Your task to perform on an android device: Go to display settings Image 0: 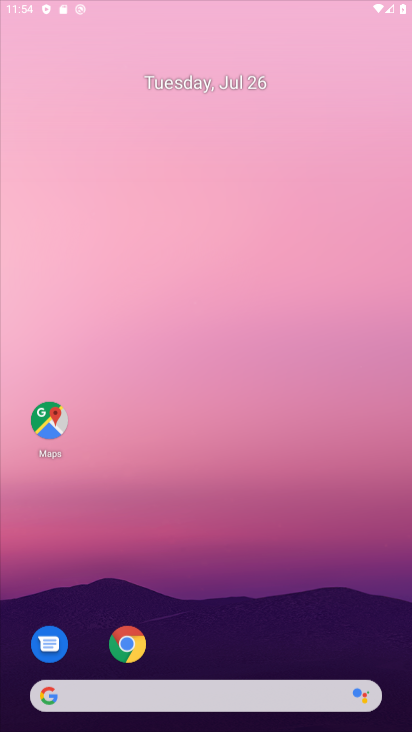
Step 0: click (18, 38)
Your task to perform on an android device: Go to display settings Image 1: 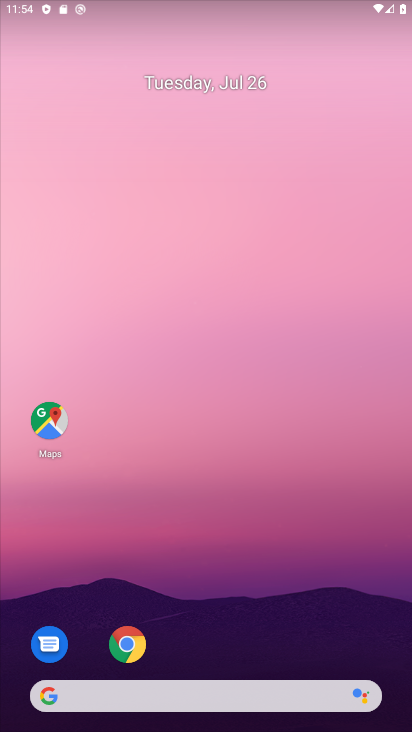
Step 1: drag from (187, 279) to (275, 95)
Your task to perform on an android device: Go to display settings Image 2: 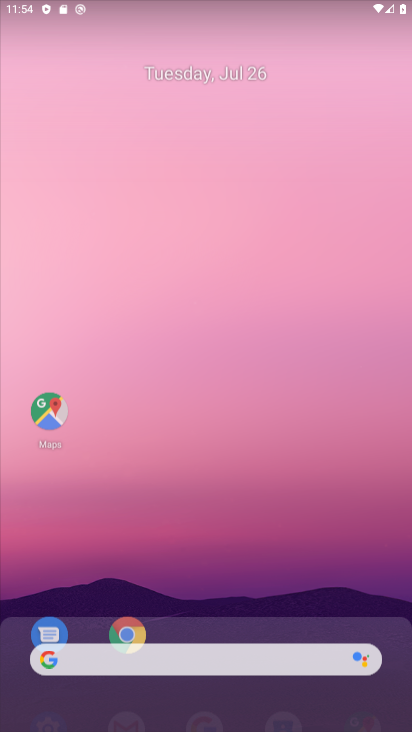
Step 2: drag from (237, 531) to (119, 1)
Your task to perform on an android device: Go to display settings Image 3: 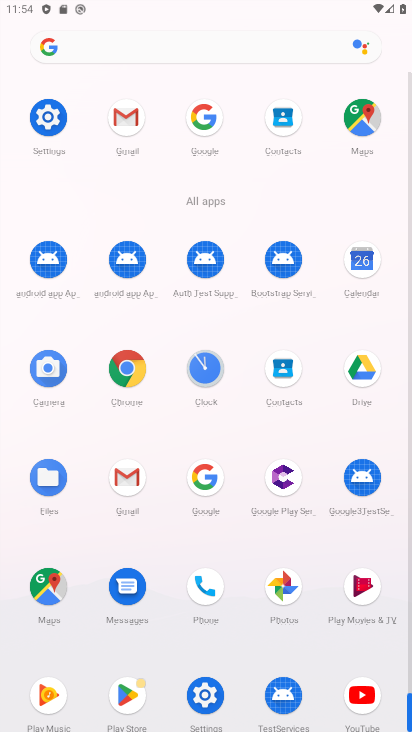
Step 3: click (40, 122)
Your task to perform on an android device: Go to display settings Image 4: 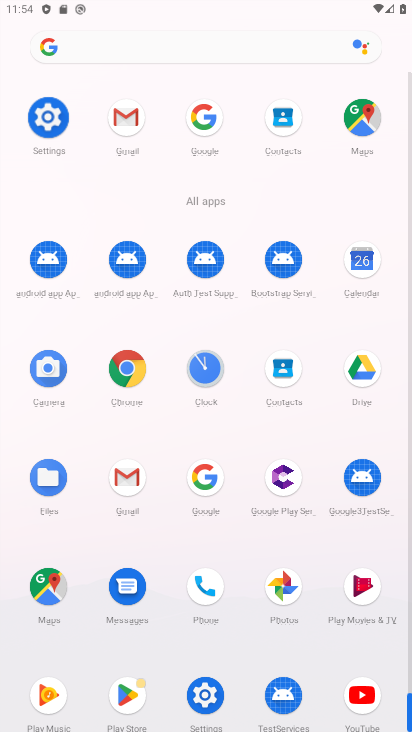
Step 4: click (42, 108)
Your task to perform on an android device: Go to display settings Image 5: 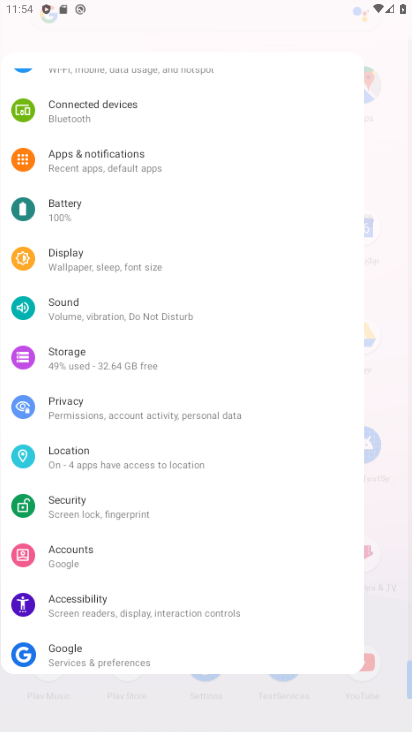
Step 5: click (42, 108)
Your task to perform on an android device: Go to display settings Image 6: 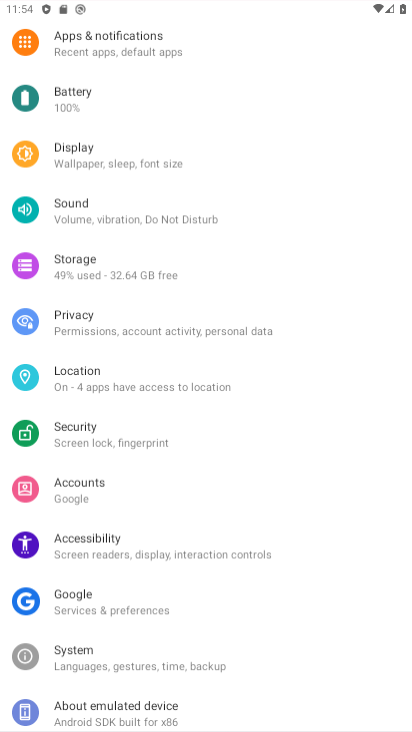
Step 6: click (42, 107)
Your task to perform on an android device: Go to display settings Image 7: 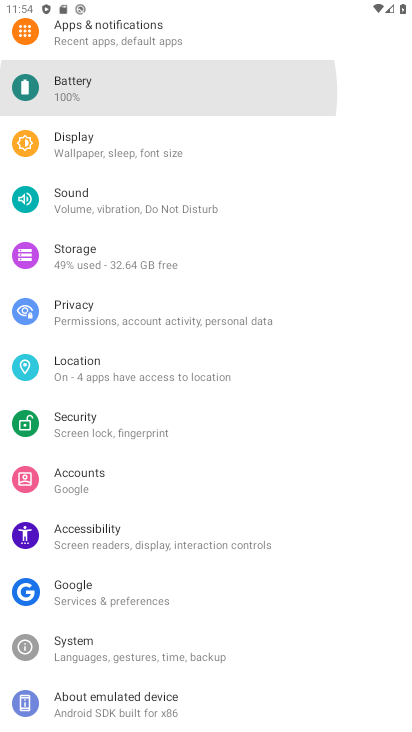
Step 7: click (42, 106)
Your task to perform on an android device: Go to display settings Image 8: 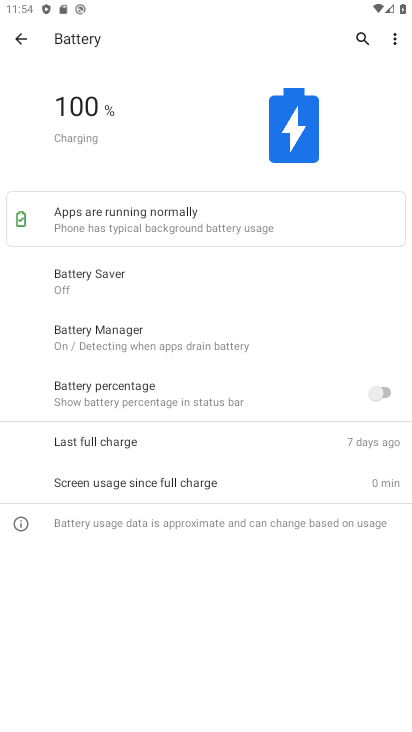
Step 8: click (25, 36)
Your task to perform on an android device: Go to display settings Image 9: 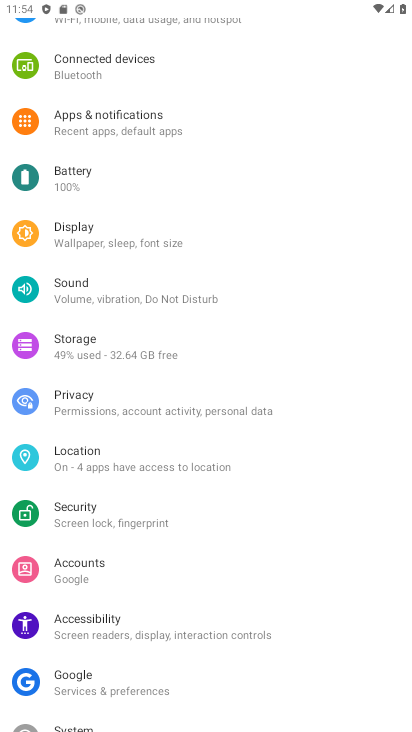
Step 9: click (13, 33)
Your task to perform on an android device: Go to display settings Image 10: 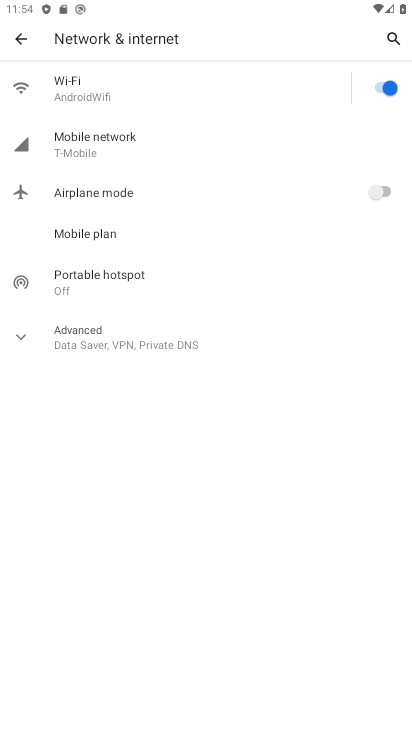
Step 10: click (89, 242)
Your task to perform on an android device: Go to display settings Image 11: 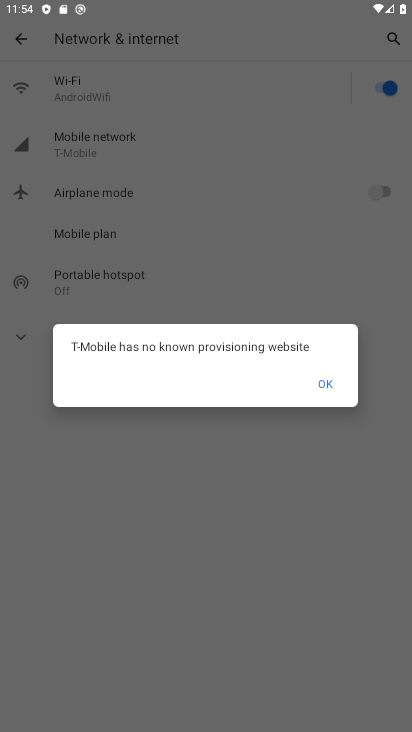
Step 11: click (326, 385)
Your task to perform on an android device: Go to display settings Image 12: 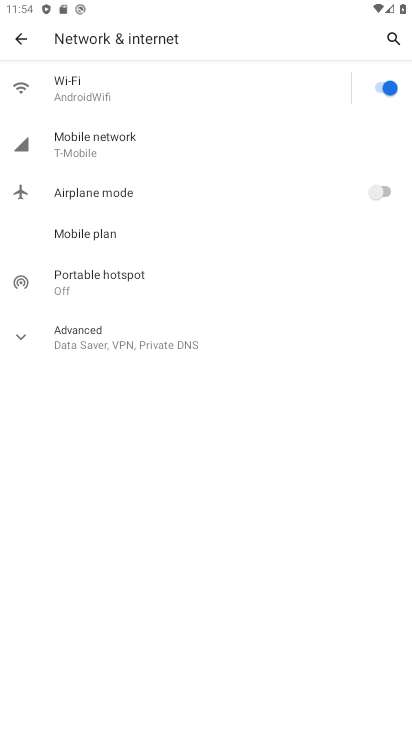
Step 12: click (23, 37)
Your task to perform on an android device: Go to display settings Image 13: 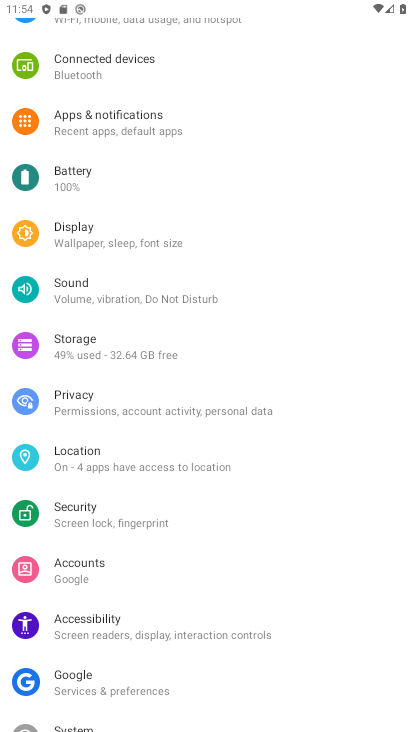
Step 13: click (86, 224)
Your task to perform on an android device: Go to display settings Image 14: 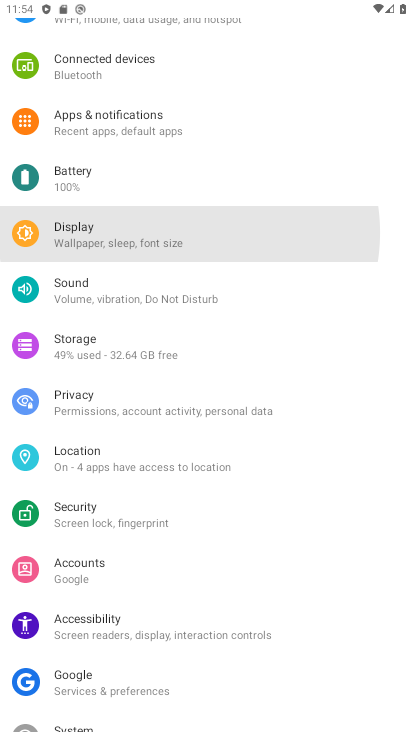
Step 14: click (79, 240)
Your task to perform on an android device: Go to display settings Image 15: 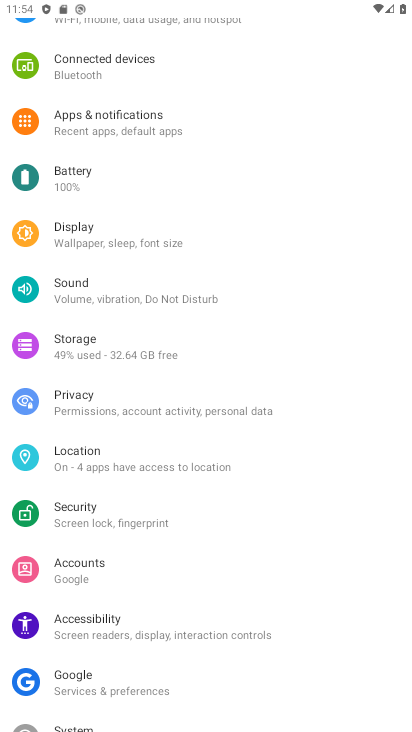
Step 15: click (79, 240)
Your task to perform on an android device: Go to display settings Image 16: 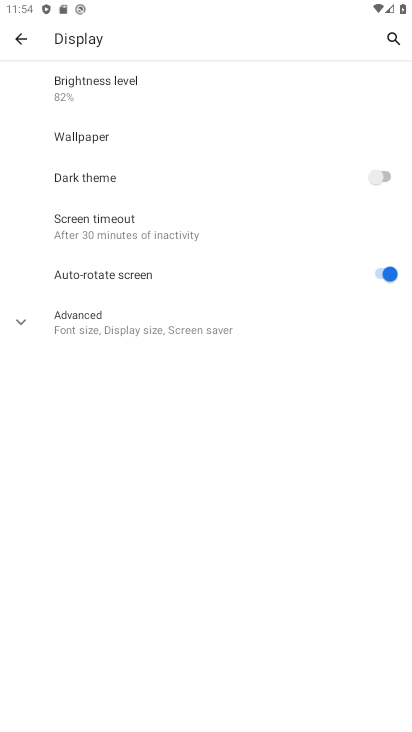
Step 16: task complete